Your task to perform on an android device: turn off priority inbox in the gmail app Image 0: 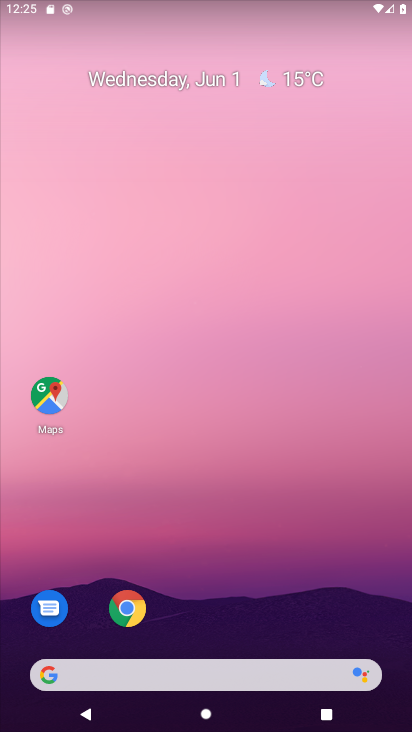
Step 0: drag from (211, 596) to (286, 69)
Your task to perform on an android device: turn off priority inbox in the gmail app Image 1: 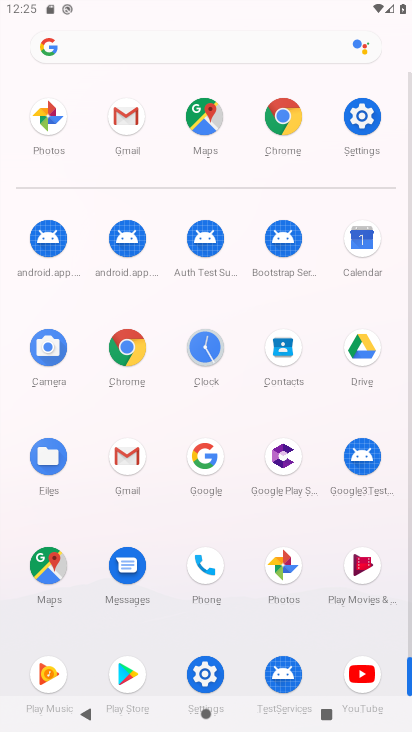
Step 1: click (142, 468)
Your task to perform on an android device: turn off priority inbox in the gmail app Image 2: 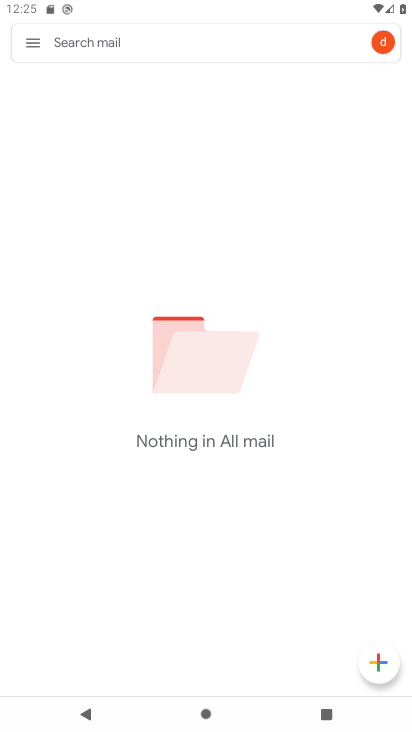
Step 2: click (29, 38)
Your task to perform on an android device: turn off priority inbox in the gmail app Image 3: 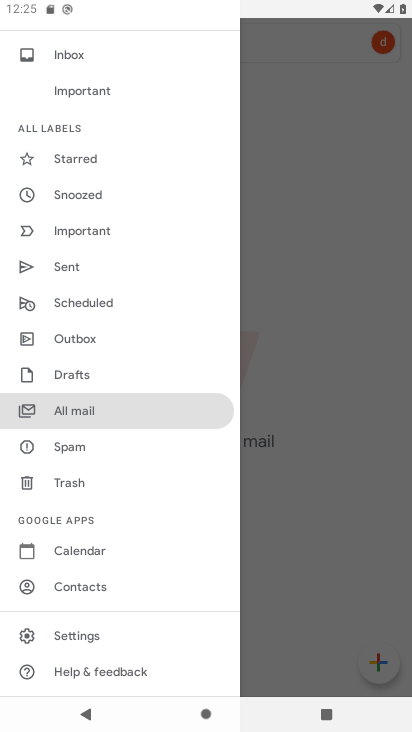
Step 3: click (80, 636)
Your task to perform on an android device: turn off priority inbox in the gmail app Image 4: 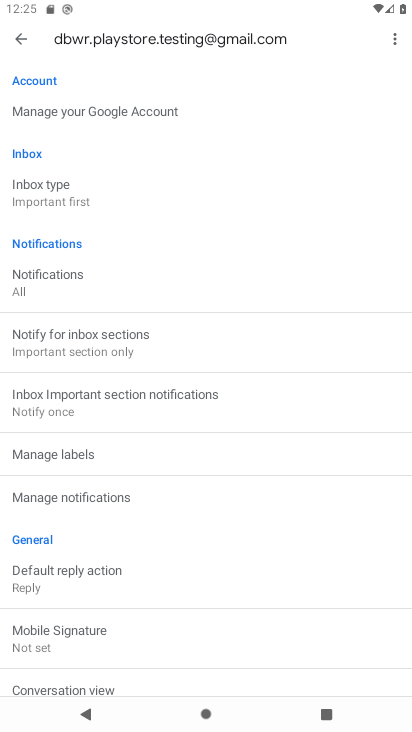
Step 4: click (69, 203)
Your task to perform on an android device: turn off priority inbox in the gmail app Image 5: 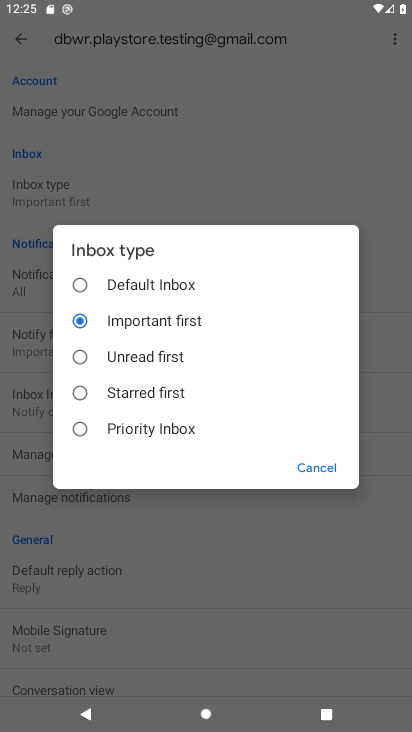
Step 5: click (127, 392)
Your task to perform on an android device: turn off priority inbox in the gmail app Image 6: 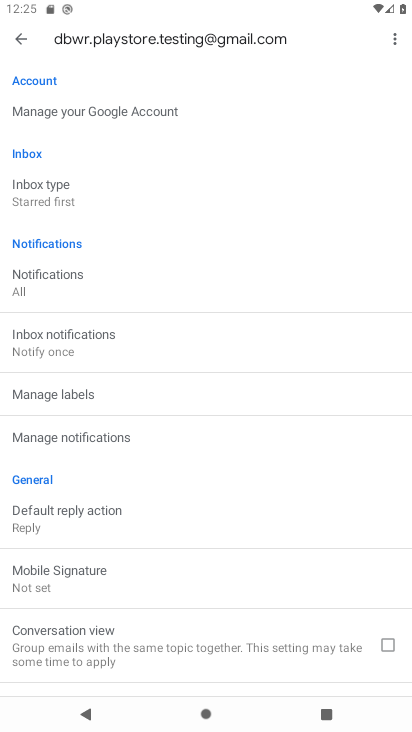
Step 6: task complete